Your task to perform on an android device: set the timer Image 0: 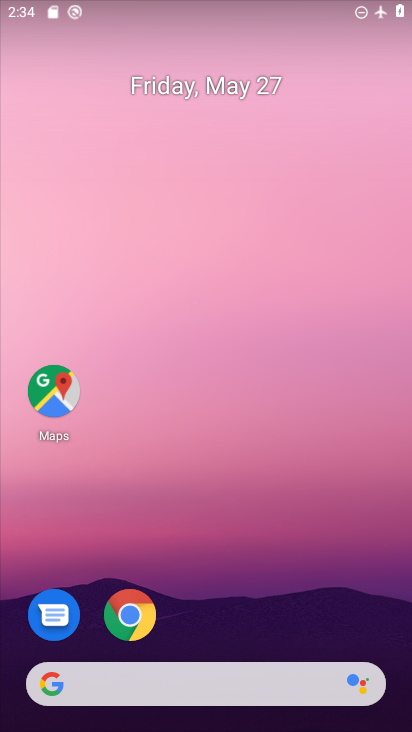
Step 0: drag from (185, 622) to (238, 293)
Your task to perform on an android device: set the timer Image 1: 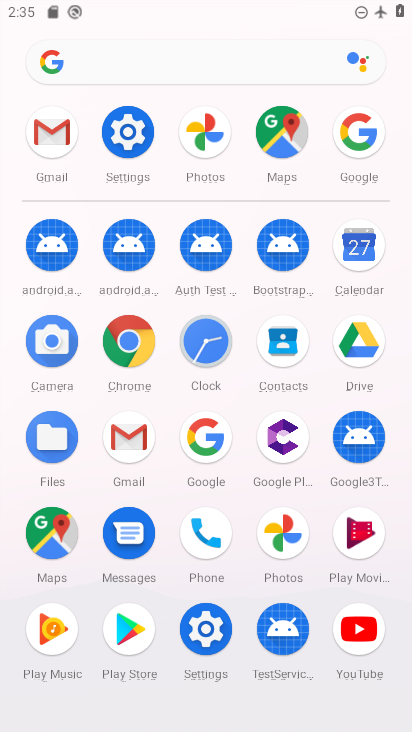
Step 1: click (197, 345)
Your task to perform on an android device: set the timer Image 2: 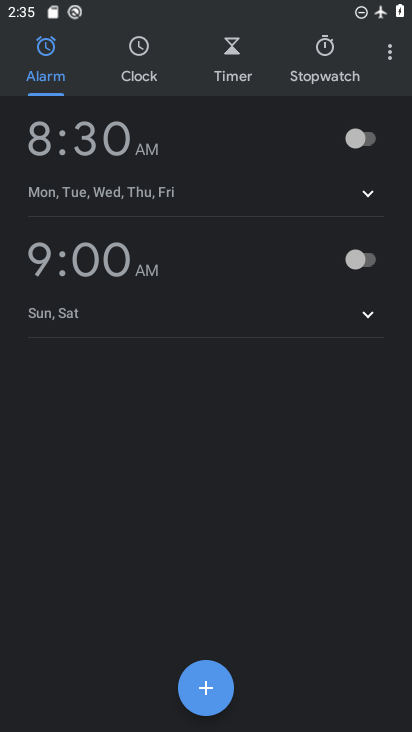
Step 2: click (220, 66)
Your task to perform on an android device: set the timer Image 3: 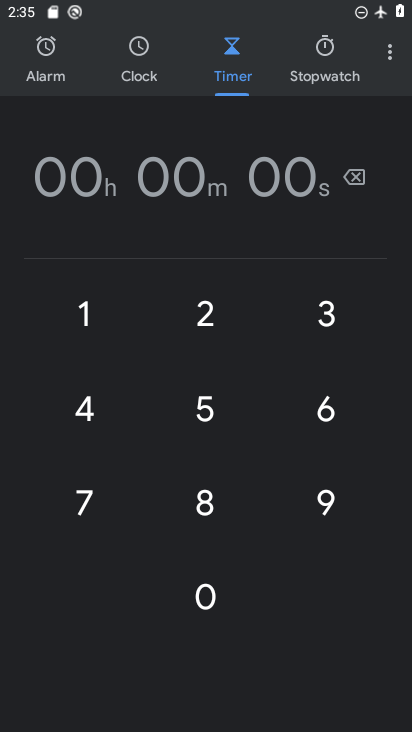
Step 3: click (220, 421)
Your task to perform on an android device: set the timer Image 4: 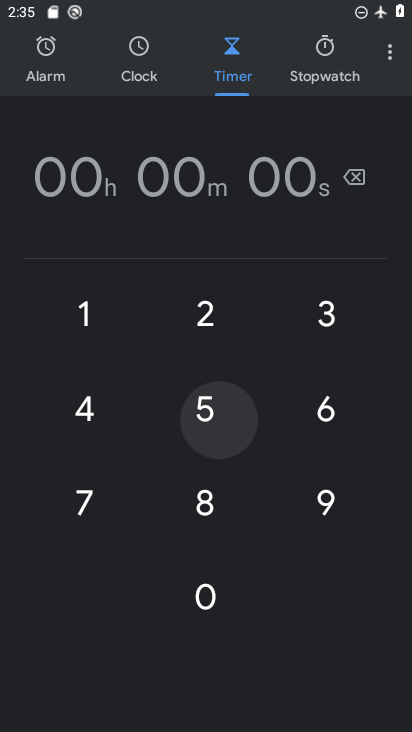
Step 4: click (220, 421)
Your task to perform on an android device: set the timer Image 5: 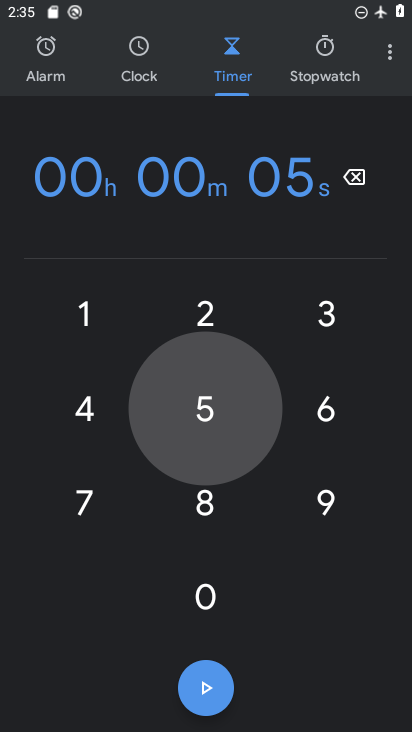
Step 5: click (220, 421)
Your task to perform on an android device: set the timer Image 6: 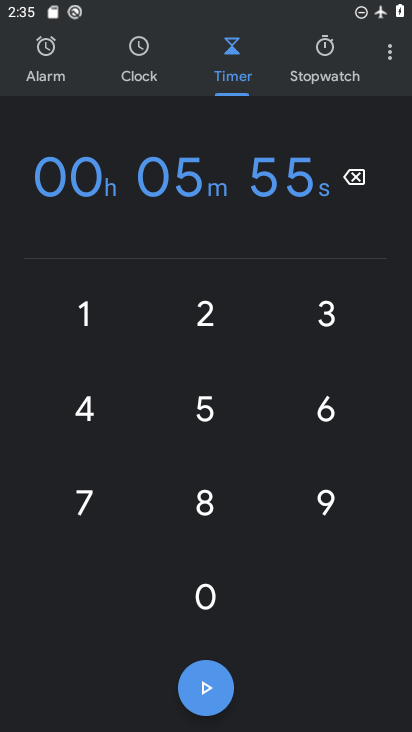
Step 6: click (206, 689)
Your task to perform on an android device: set the timer Image 7: 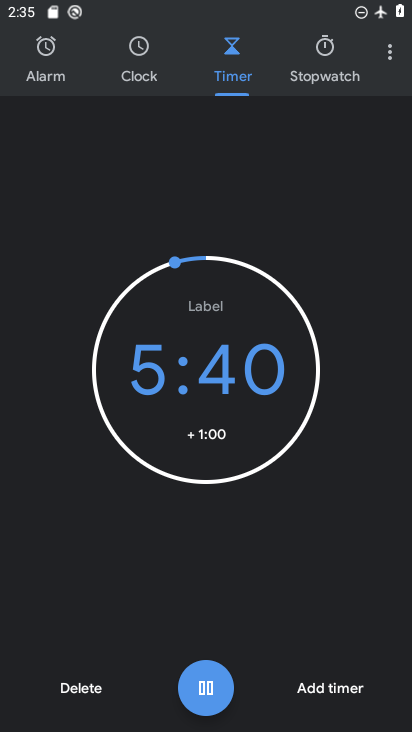
Step 7: task complete